Your task to perform on an android device: find photos in the google photos app Image 0: 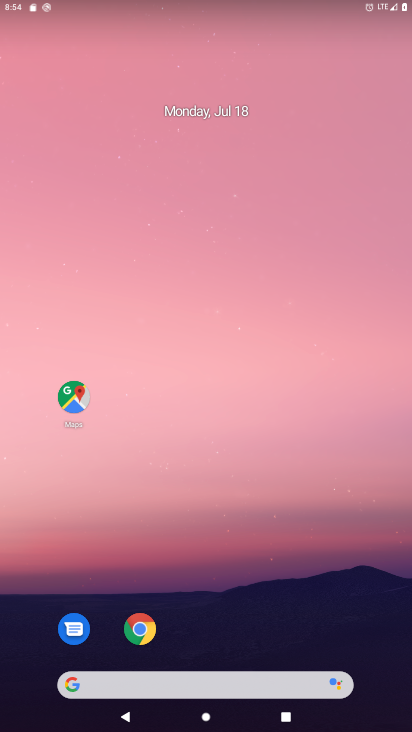
Step 0: drag from (196, 641) to (244, 39)
Your task to perform on an android device: find photos in the google photos app Image 1: 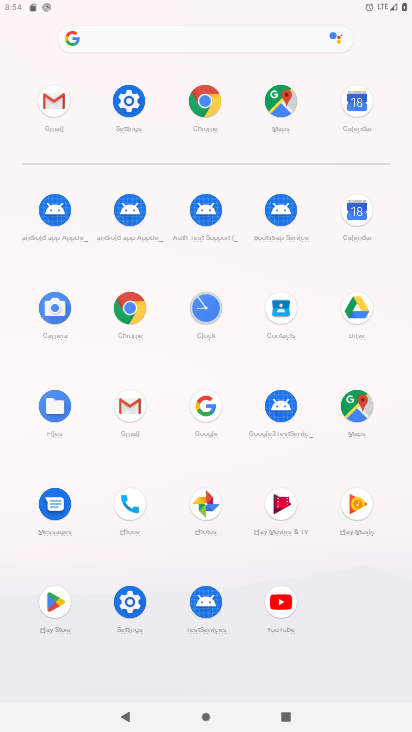
Step 1: click (206, 500)
Your task to perform on an android device: find photos in the google photos app Image 2: 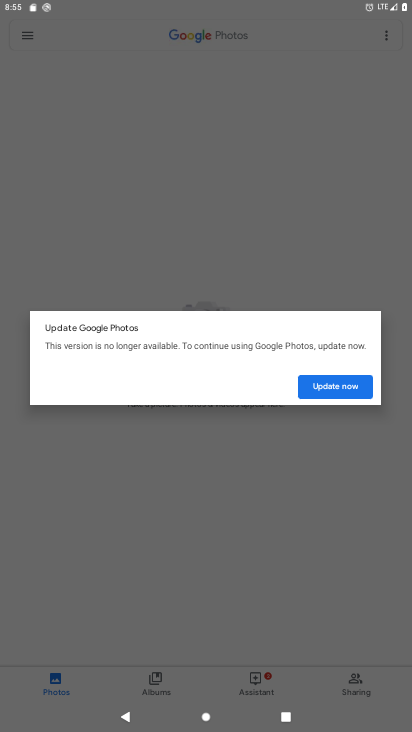
Step 2: click (340, 395)
Your task to perform on an android device: find photos in the google photos app Image 3: 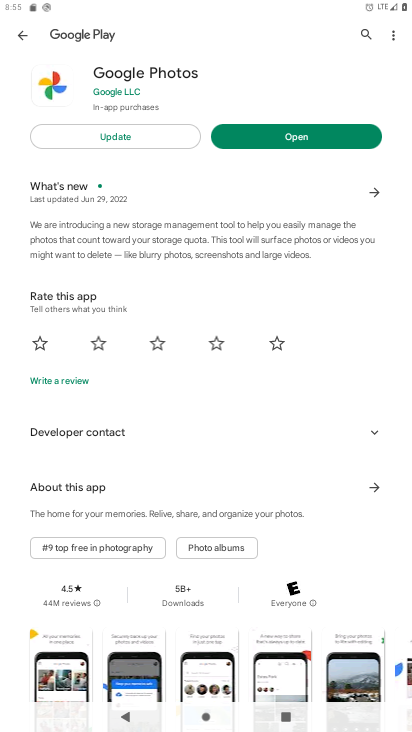
Step 3: click (293, 142)
Your task to perform on an android device: find photos in the google photos app Image 4: 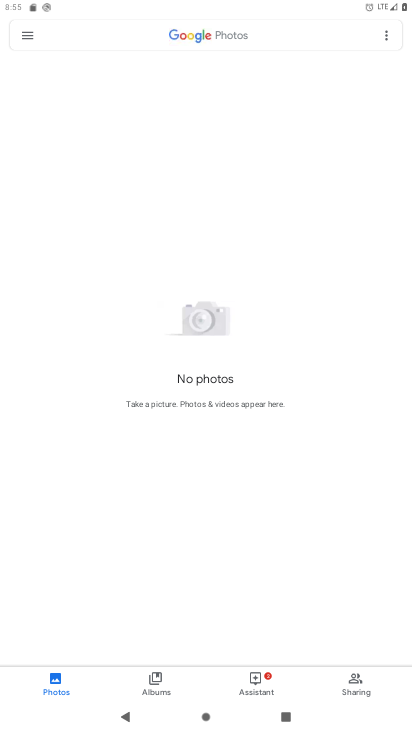
Step 4: task complete